Your task to perform on an android device: toggle location history Image 0: 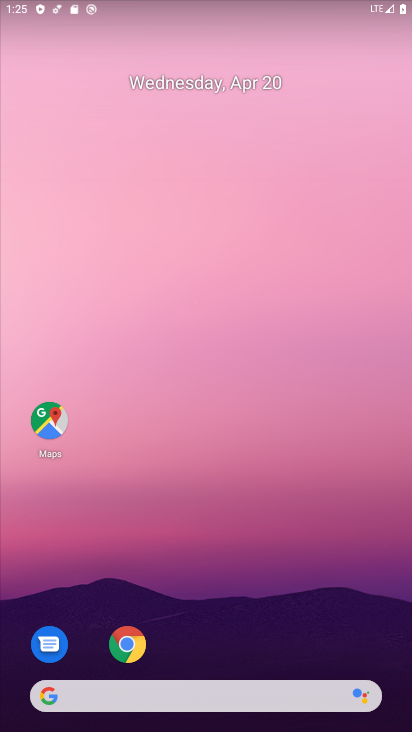
Step 0: drag from (137, 592) to (228, 48)
Your task to perform on an android device: toggle location history Image 1: 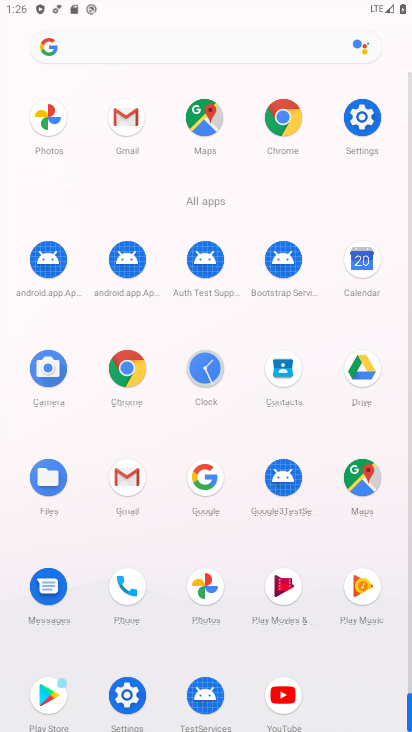
Step 1: click (353, 119)
Your task to perform on an android device: toggle location history Image 2: 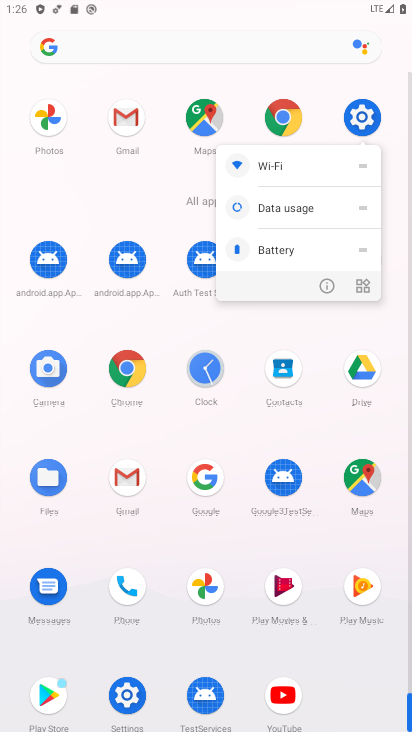
Step 2: click (353, 119)
Your task to perform on an android device: toggle location history Image 3: 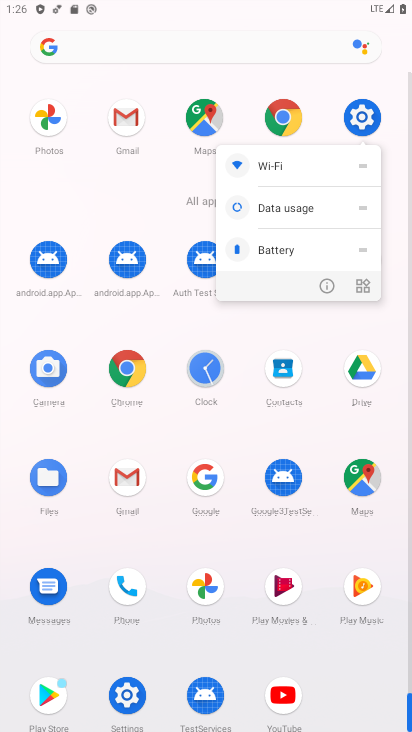
Step 3: click (354, 111)
Your task to perform on an android device: toggle location history Image 4: 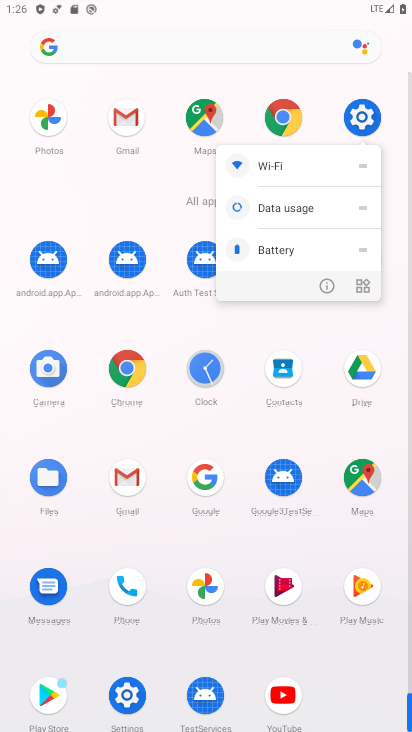
Step 4: click (352, 104)
Your task to perform on an android device: toggle location history Image 5: 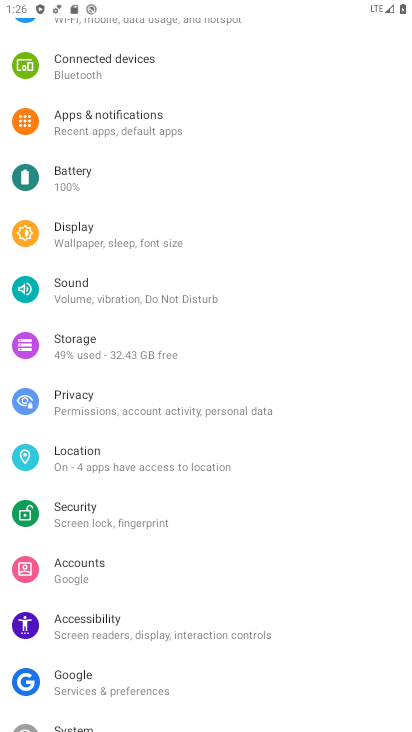
Step 5: click (80, 462)
Your task to perform on an android device: toggle location history Image 6: 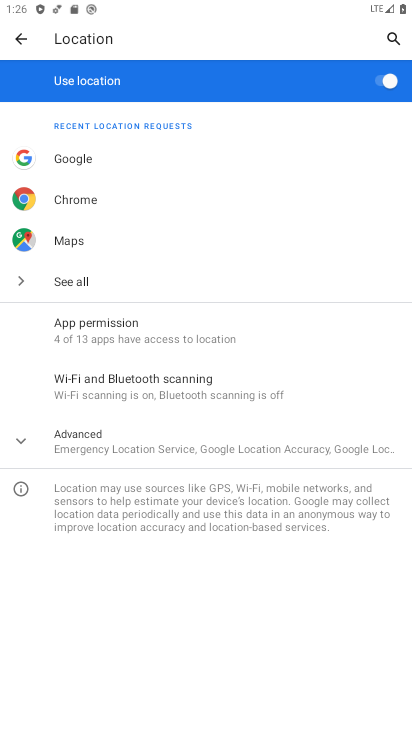
Step 6: click (131, 441)
Your task to perform on an android device: toggle location history Image 7: 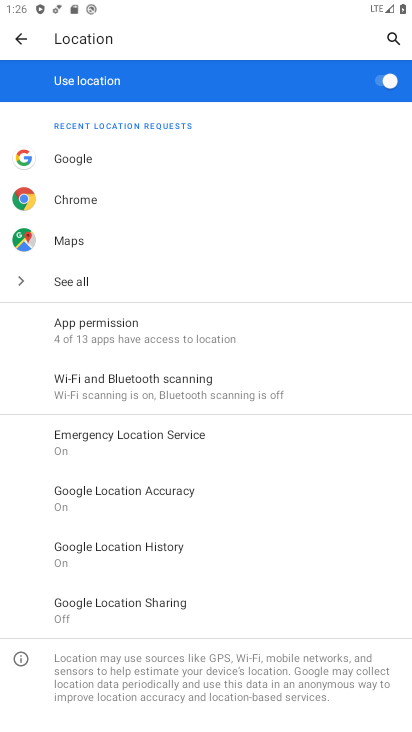
Step 7: click (165, 548)
Your task to perform on an android device: toggle location history Image 8: 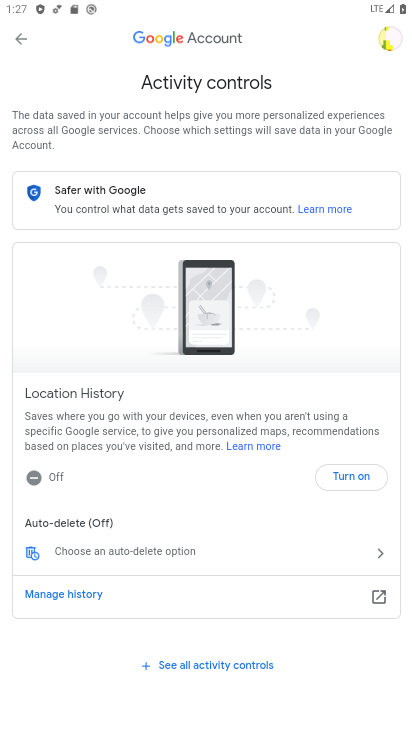
Step 8: click (361, 479)
Your task to perform on an android device: toggle location history Image 9: 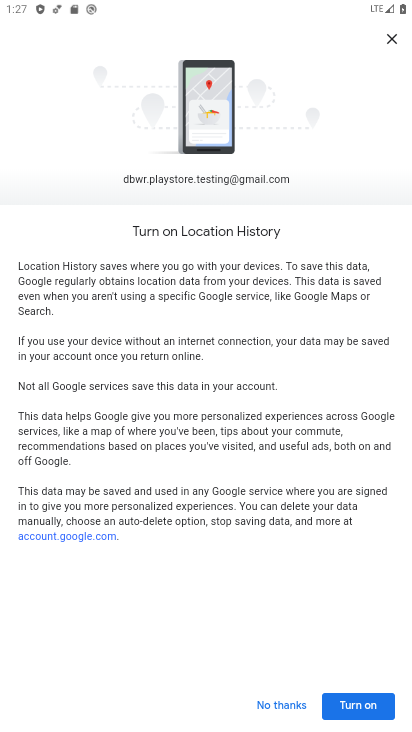
Step 9: drag from (336, 596) to (390, 68)
Your task to perform on an android device: toggle location history Image 10: 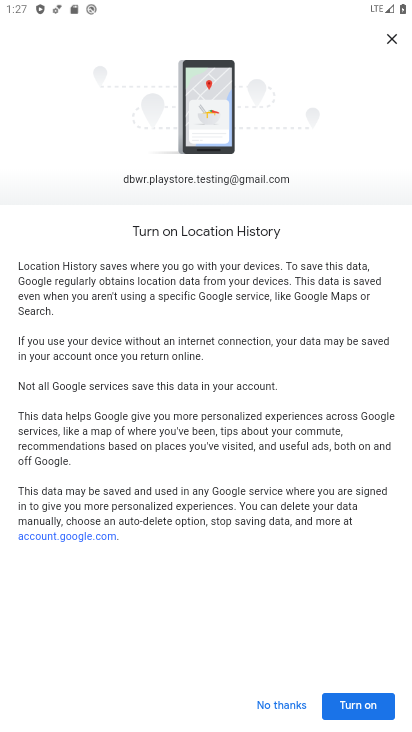
Step 10: drag from (316, 512) to (343, 131)
Your task to perform on an android device: toggle location history Image 11: 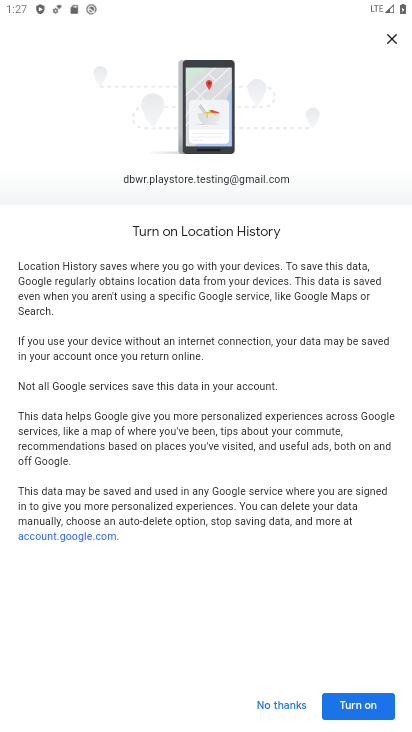
Step 11: click (332, 712)
Your task to perform on an android device: toggle location history Image 12: 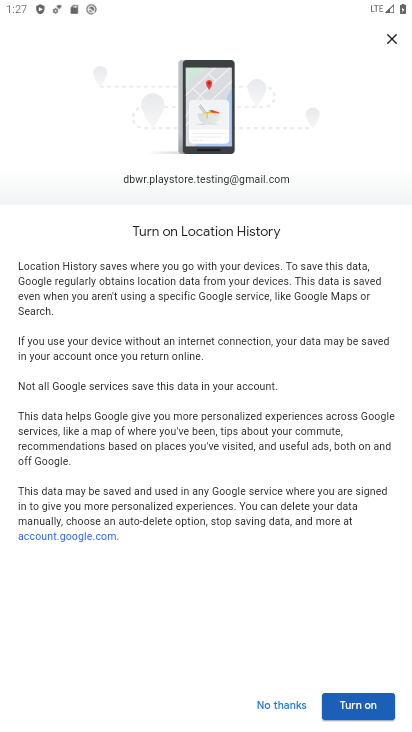
Step 12: click (355, 701)
Your task to perform on an android device: toggle location history Image 13: 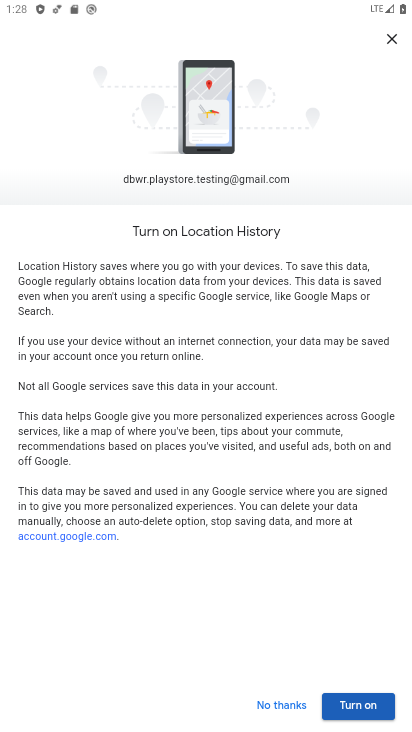
Step 13: click (357, 710)
Your task to perform on an android device: toggle location history Image 14: 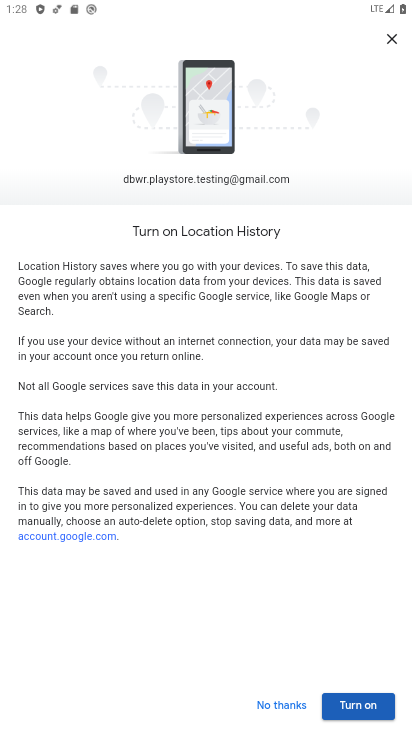
Step 14: click (364, 700)
Your task to perform on an android device: toggle location history Image 15: 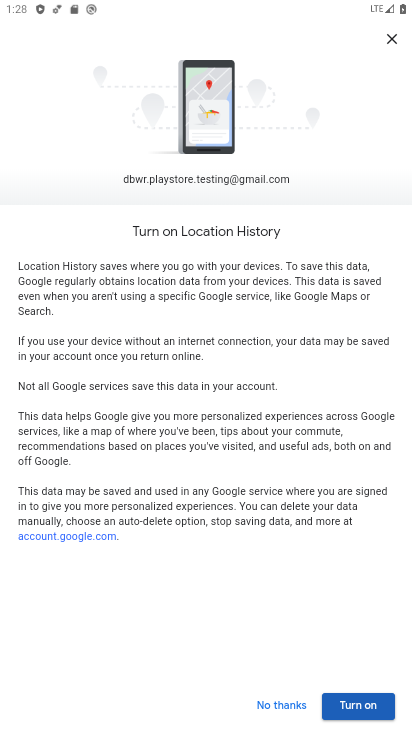
Step 15: click (361, 700)
Your task to perform on an android device: toggle location history Image 16: 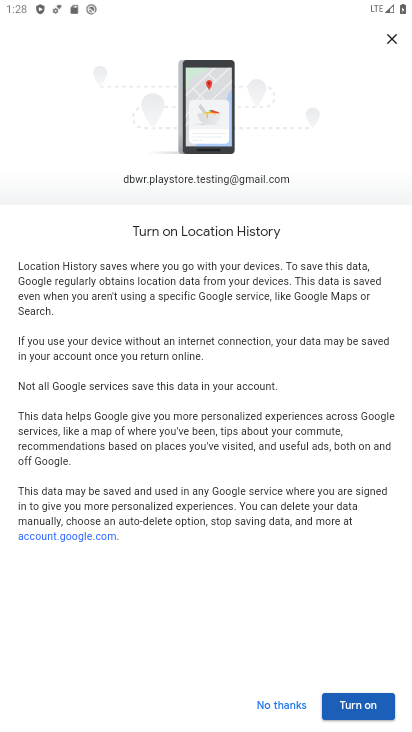
Step 16: click (369, 707)
Your task to perform on an android device: toggle location history Image 17: 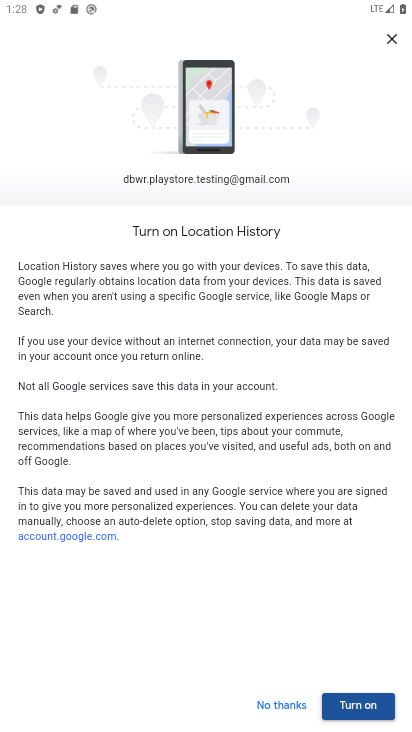
Step 17: click (369, 707)
Your task to perform on an android device: toggle location history Image 18: 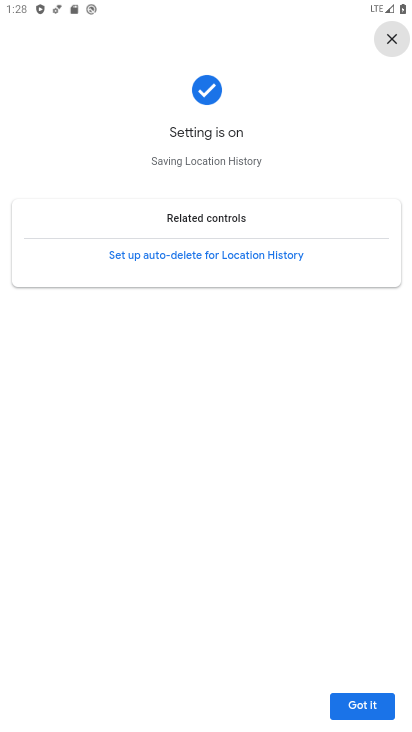
Step 18: task complete